Your task to perform on an android device: Go to network settings Image 0: 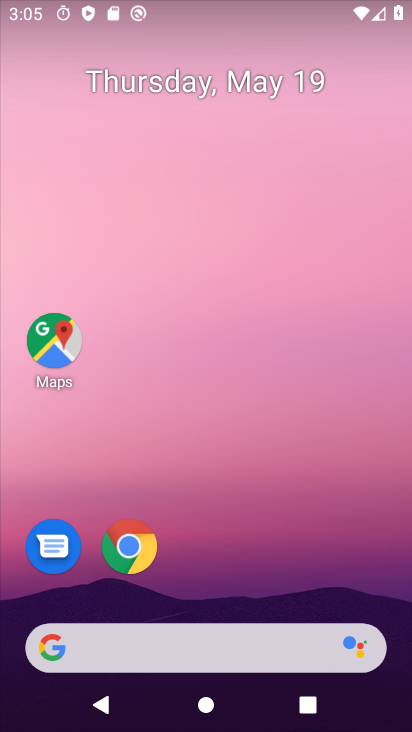
Step 0: press home button
Your task to perform on an android device: Go to network settings Image 1: 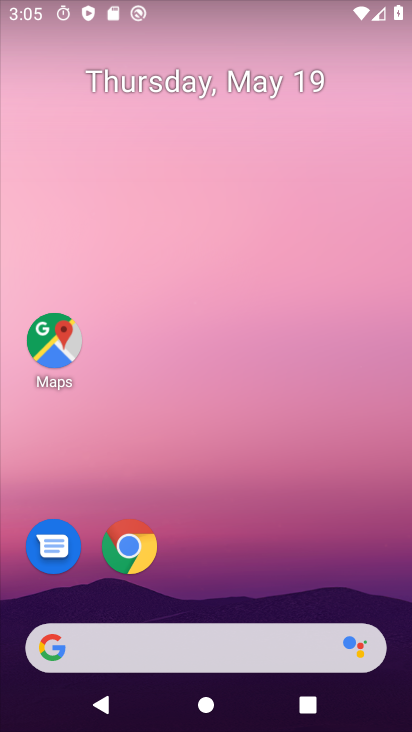
Step 1: drag from (213, 602) to (242, 68)
Your task to perform on an android device: Go to network settings Image 2: 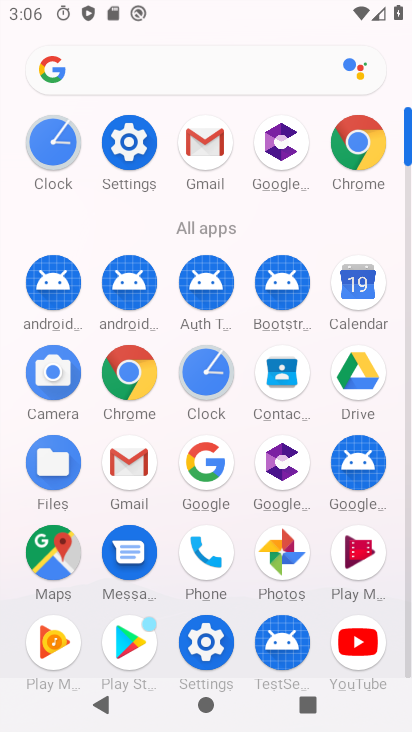
Step 2: click (128, 136)
Your task to perform on an android device: Go to network settings Image 3: 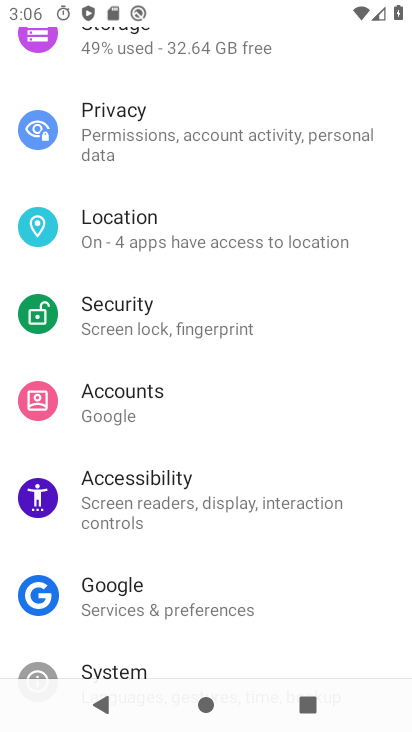
Step 3: drag from (185, 90) to (163, 630)
Your task to perform on an android device: Go to network settings Image 4: 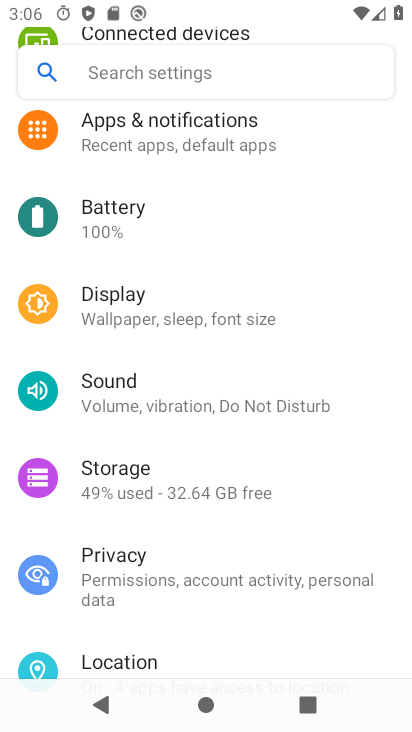
Step 4: drag from (163, 187) to (157, 620)
Your task to perform on an android device: Go to network settings Image 5: 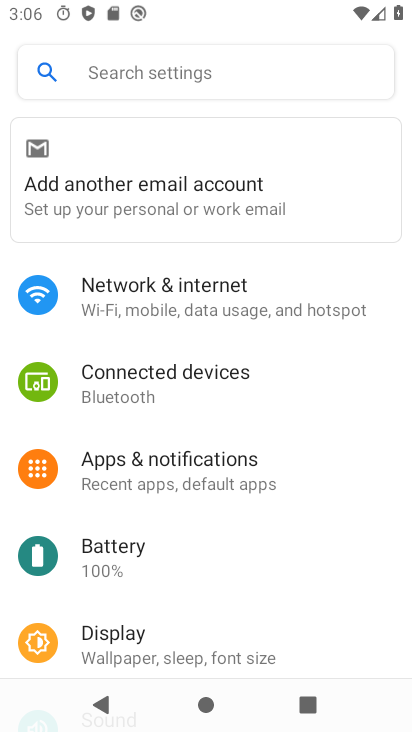
Step 5: click (175, 292)
Your task to perform on an android device: Go to network settings Image 6: 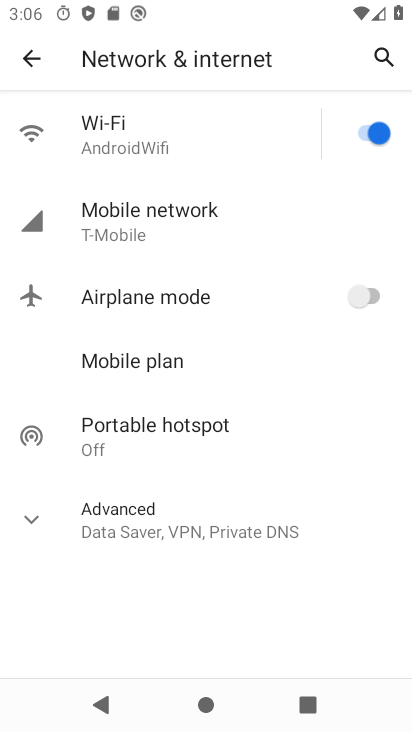
Step 6: click (50, 517)
Your task to perform on an android device: Go to network settings Image 7: 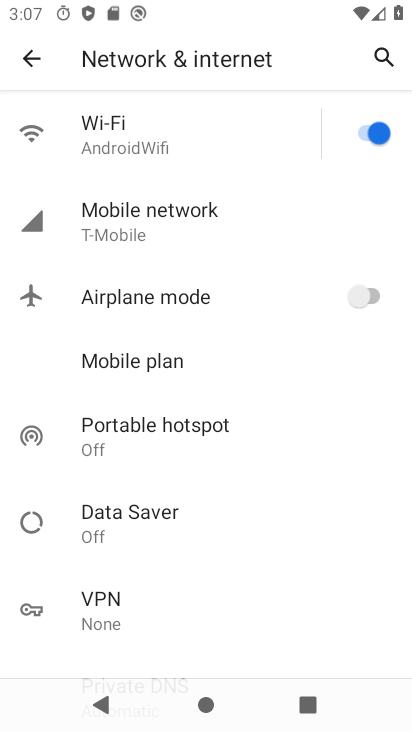
Step 7: task complete